Your task to perform on an android device: Go to internet settings Image 0: 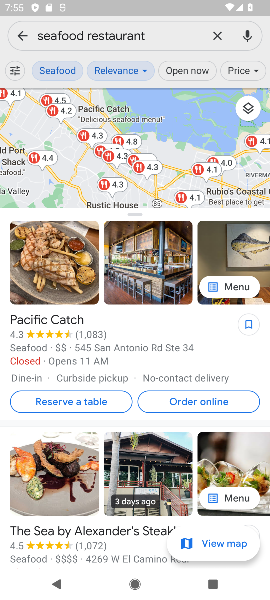
Step 0: press home button
Your task to perform on an android device: Go to internet settings Image 1: 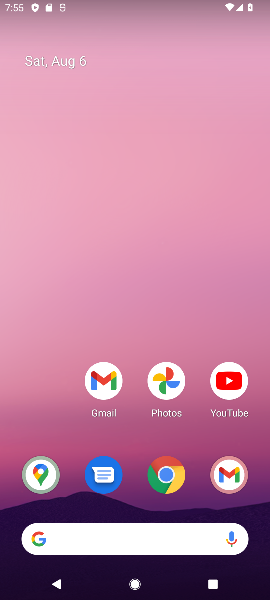
Step 1: drag from (136, 444) to (138, 184)
Your task to perform on an android device: Go to internet settings Image 2: 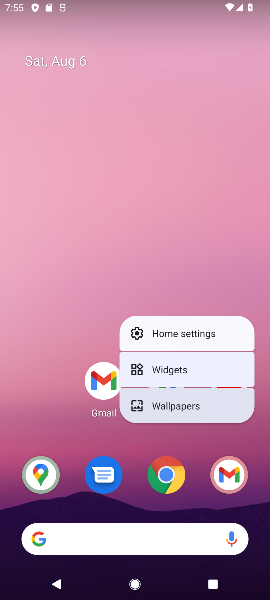
Step 2: click (134, 201)
Your task to perform on an android device: Go to internet settings Image 3: 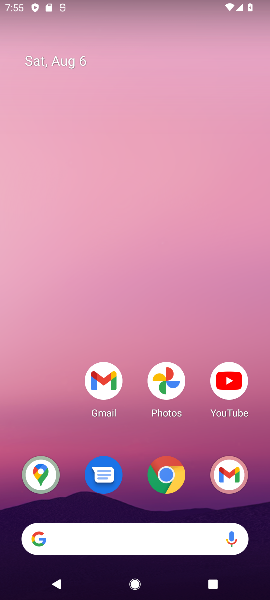
Step 3: drag from (127, 455) to (137, 159)
Your task to perform on an android device: Go to internet settings Image 4: 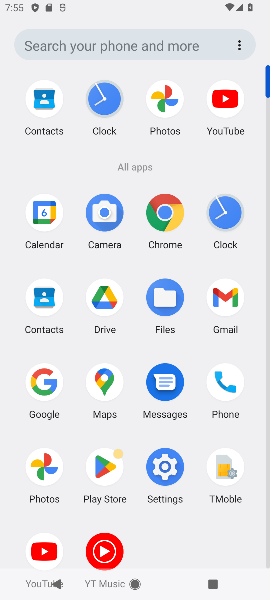
Step 4: click (164, 475)
Your task to perform on an android device: Go to internet settings Image 5: 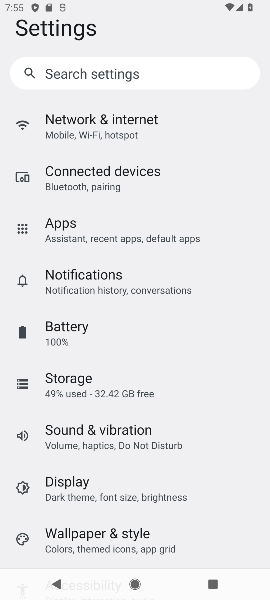
Step 5: click (98, 115)
Your task to perform on an android device: Go to internet settings Image 6: 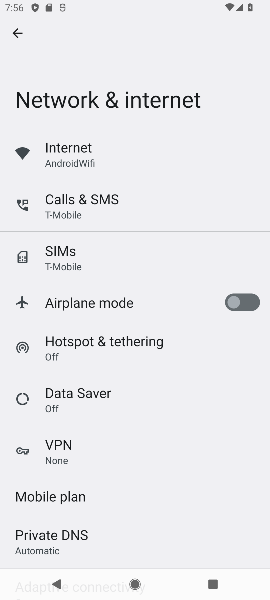
Step 6: click (102, 147)
Your task to perform on an android device: Go to internet settings Image 7: 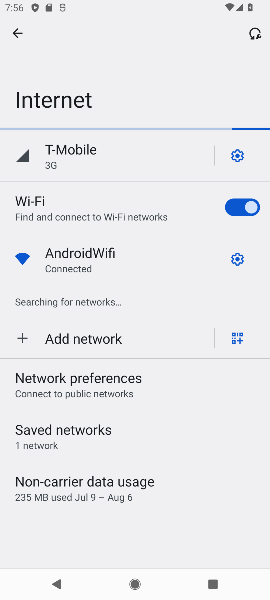
Step 7: task complete